Your task to perform on an android device: Open Yahoo.com Image 0: 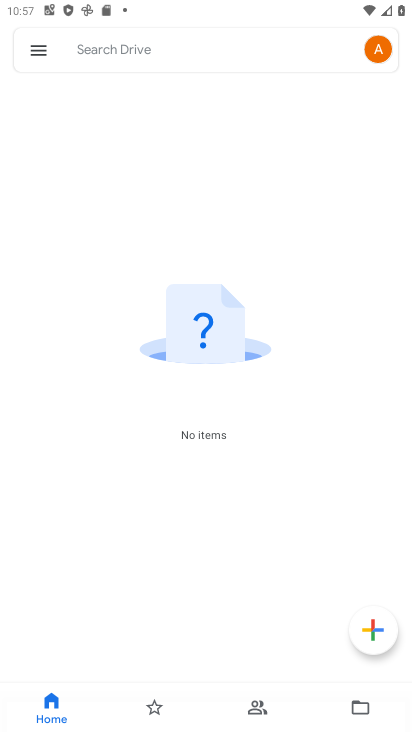
Step 0: press home button
Your task to perform on an android device: Open Yahoo.com Image 1: 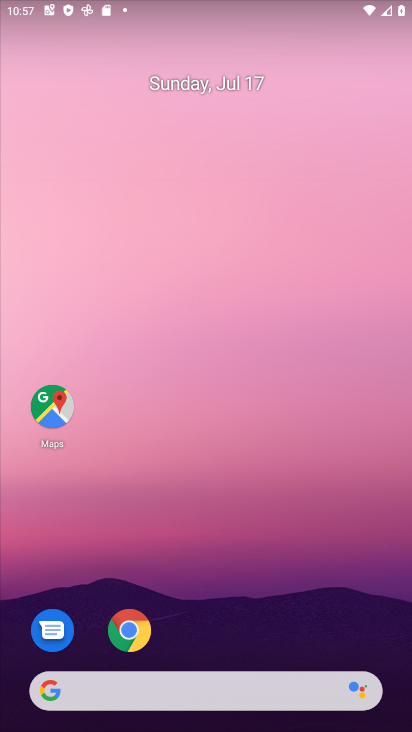
Step 1: drag from (261, 624) to (261, 17)
Your task to perform on an android device: Open Yahoo.com Image 2: 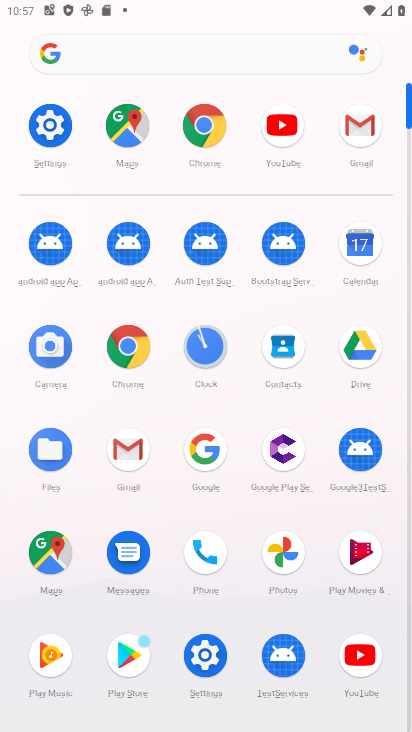
Step 2: click (202, 152)
Your task to perform on an android device: Open Yahoo.com Image 3: 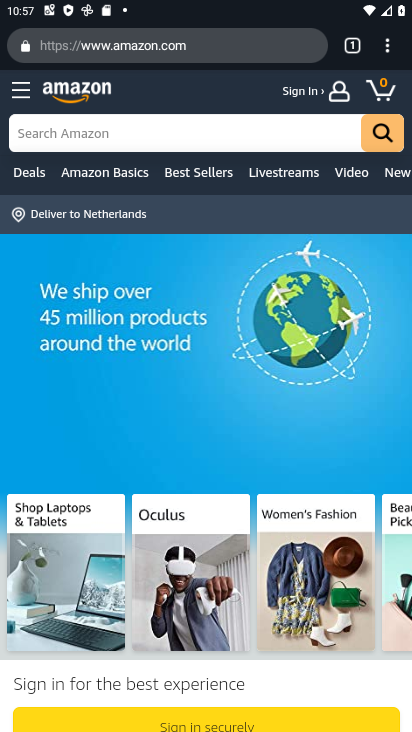
Step 3: click (196, 129)
Your task to perform on an android device: Open Yahoo.com Image 4: 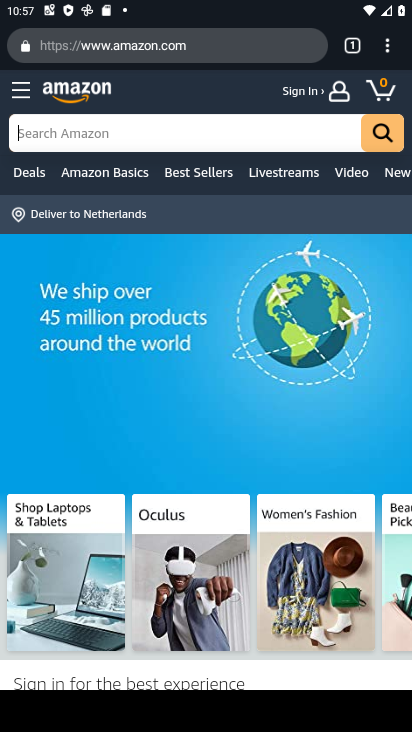
Step 4: type "yahoo.com"
Your task to perform on an android device: Open Yahoo.com Image 5: 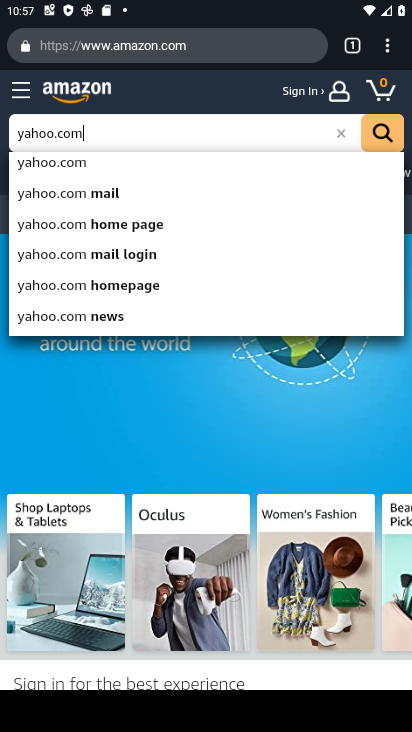
Step 5: click (167, 31)
Your task to perform on an android device: Open Yahoo.com Image 6: 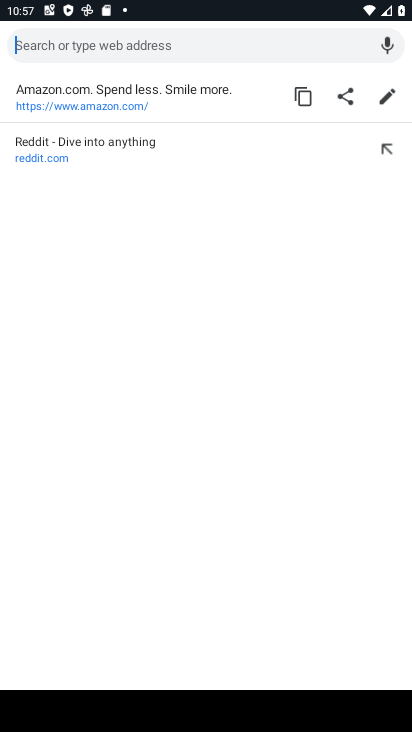
Step 6: type "yahoo.com"
Your task to perform on an android device: Open Yahoo.com Image 7: 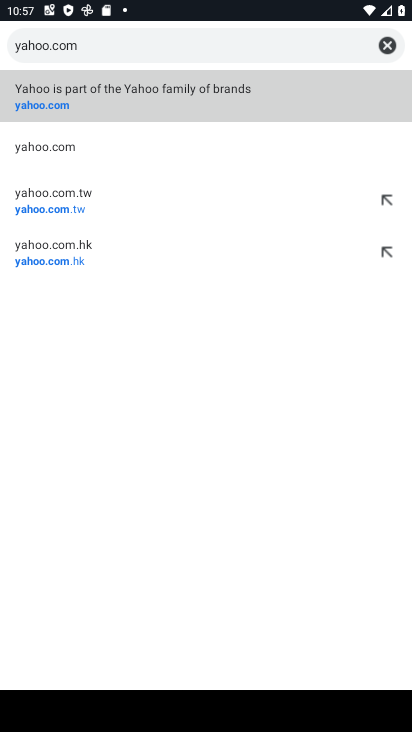
Step 7: click (121, 90)
Your task to perform on an android device: Open Yahoo.com Image 8: 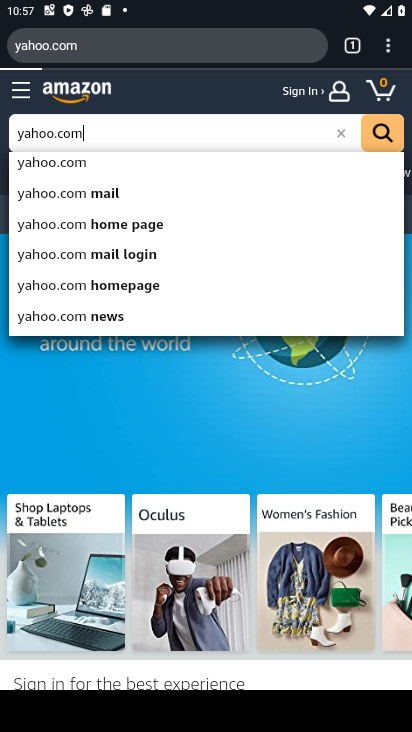
Step 8: task complete